Your task to perform on an android device: Show me recent news Image 0: 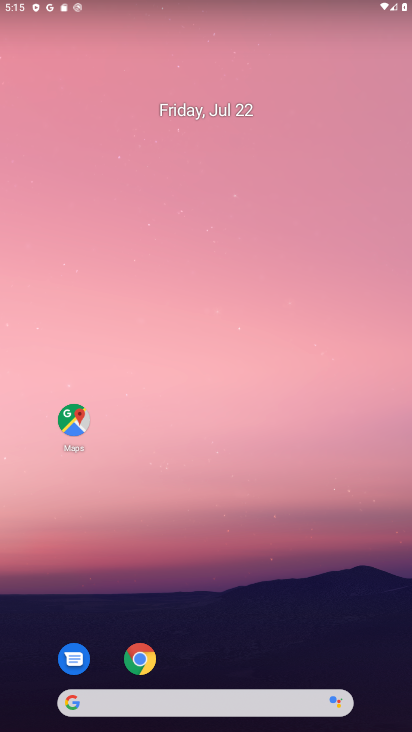
Step 0: press home button
Your task to perform on an android device: Show me recent news Image 1: 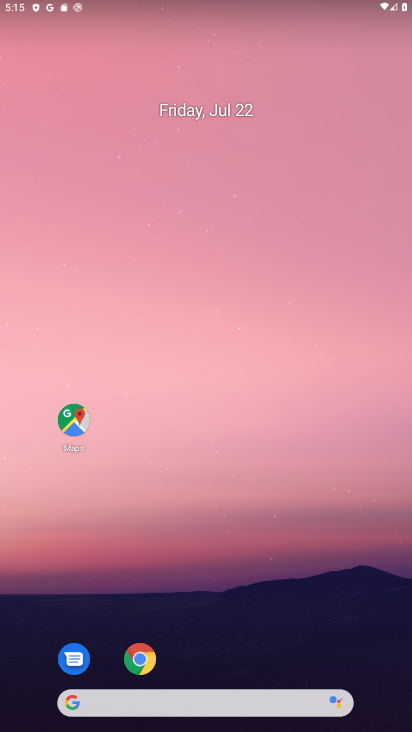
Step 1: task complete